Your task to perform on an android device: Is it going to rain today? Image 0: 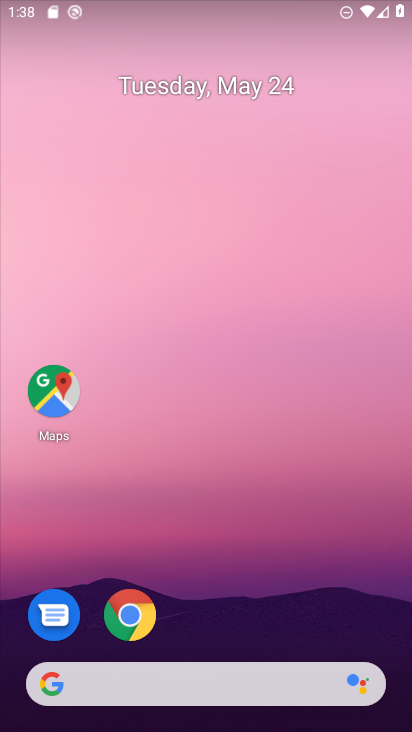
Step 0: drag from (213, 637) to (287, 146)
Your task to perform on an android device: Is it going to rain today? Image 1: 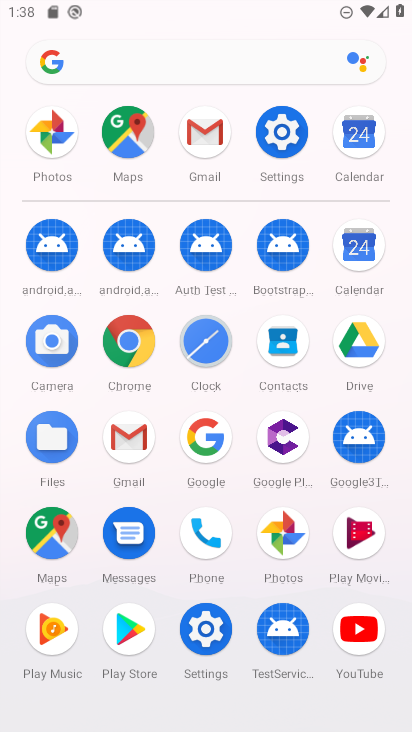
Step 1: click (156, 67)
Your task to perform on an android device: Is it going to rain today? Image 2: 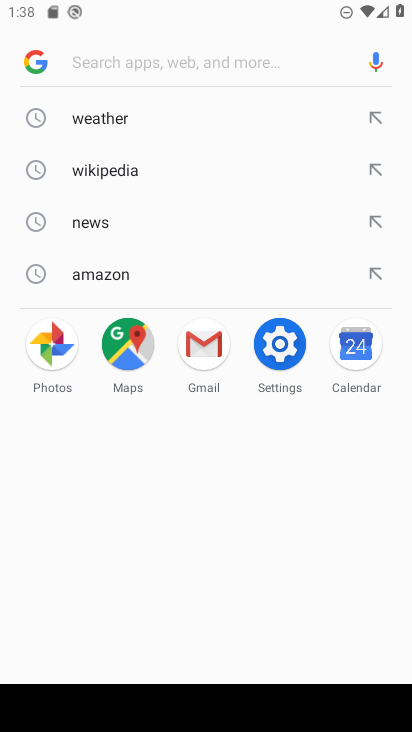
Step 2: click (132, 106)
Your task to perform on an android device: Is it going to rain today? Image 3: 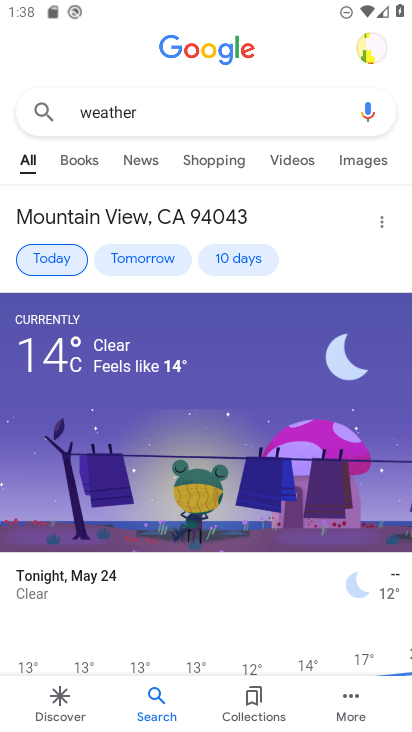
Step 3: task complete